Your task to perform on an android device: open sync settings in chrome Image 0: 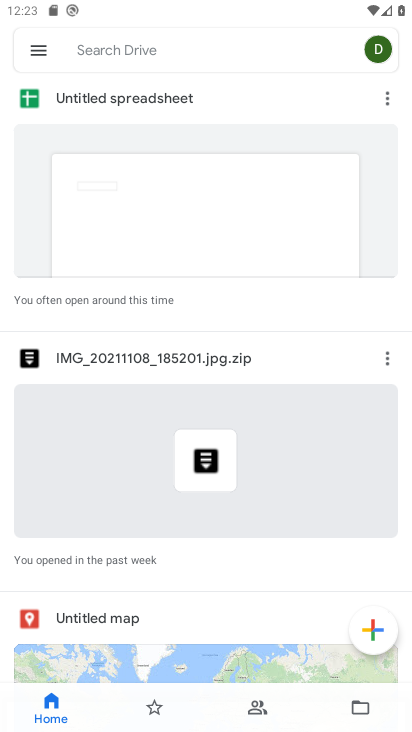
Step 0: press home button
Your task to perform on an android device: open sync settings in chrome Image 1: 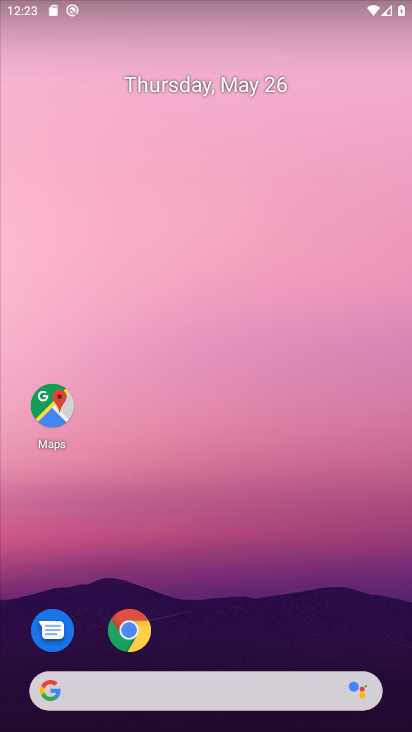
Step 1: click (131, 625)
Your task to perform on an android device: open sync settings in chrome Image 2: 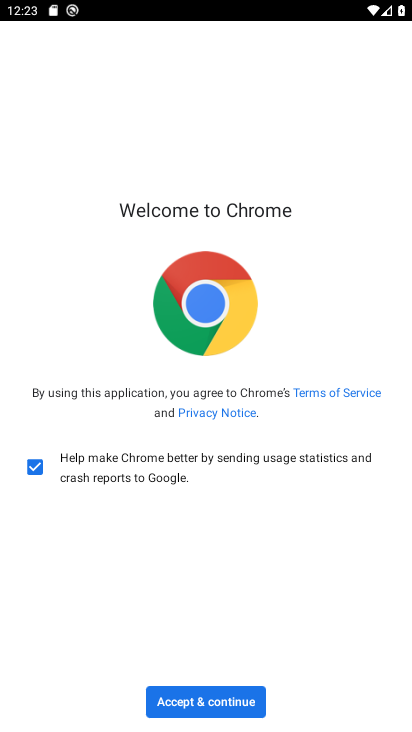
Step 2: click (201, 694)
Your task to perform on an android device: open sync settings in chrome Image 3: 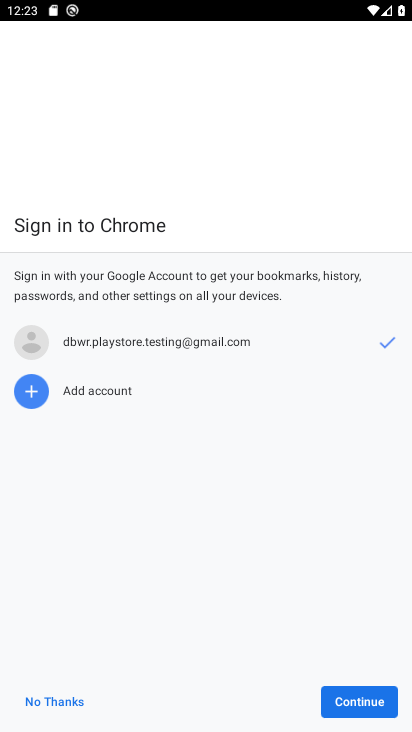
Step 3: click (365, 699)
Your task to perform on an android device: open sync settings in chrome Image 4: 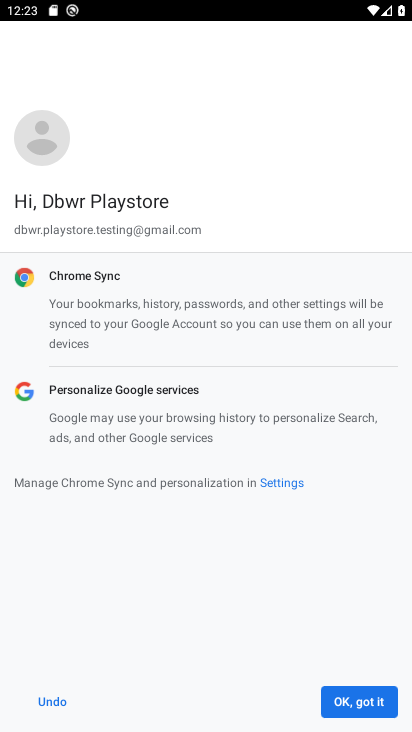
Step 4: click (361, 699)
Your task to perform on an android device: open sync settings in chrome Image 5: 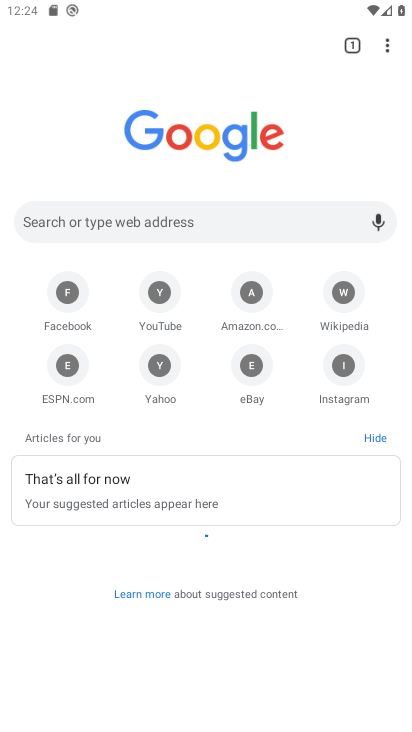
Step 5: click (387, 43)
Your task to perform on an android device: open sync settings in chrome Image 6: 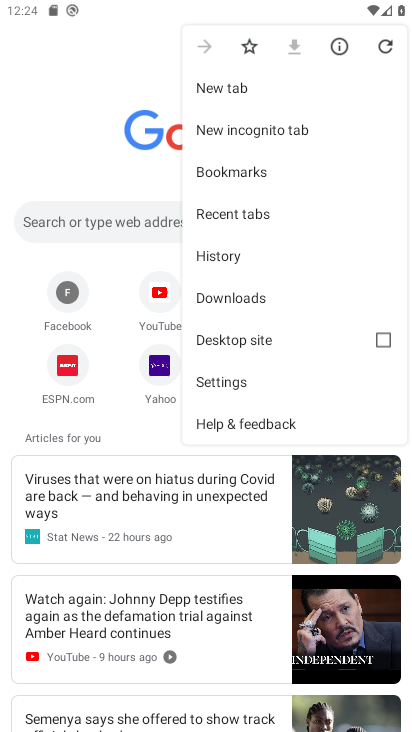
Step 6: click (257, 379)
Your task to perform on an android device: open sync settings in chrome Image 7: 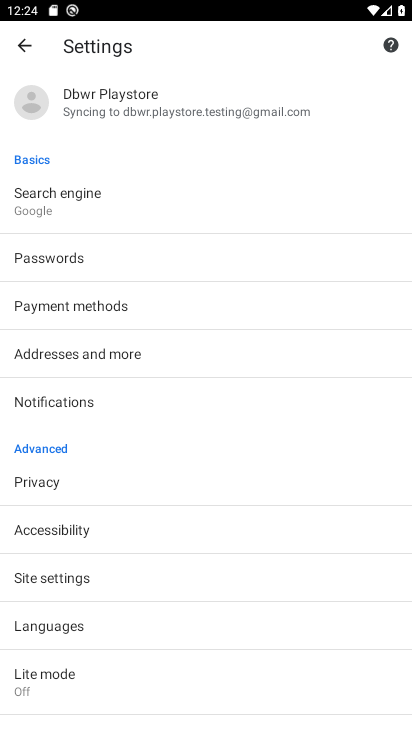
Step 7: click (168, 107)
Your task to perform on an android device: open sync settings in chrome Image 8: 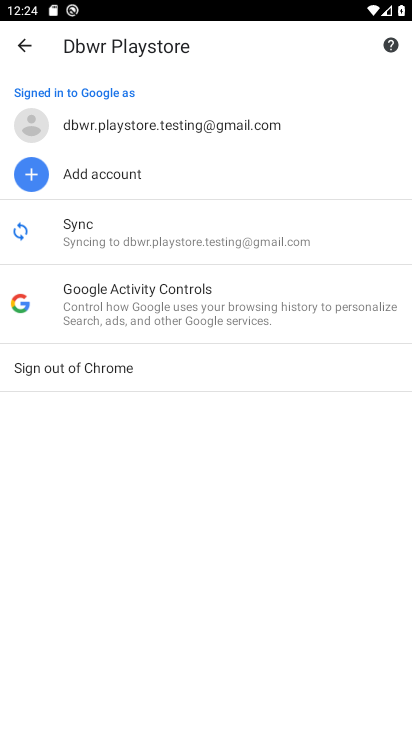
Step 8: click (121, 231)
Your task to perform on an android device: open sync settings in chrome Image 9: 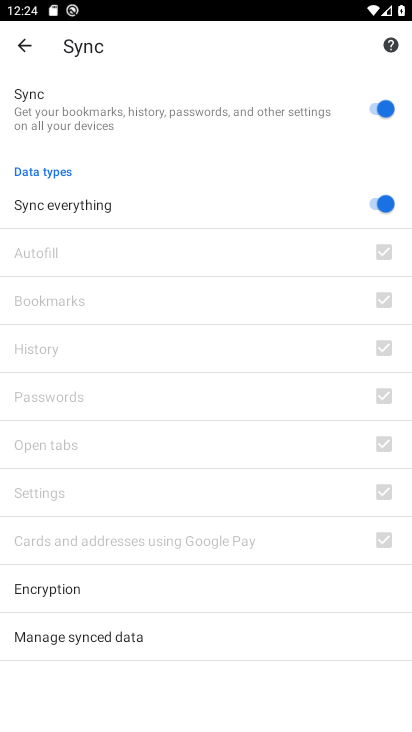
Step 9: task complete